Your task to perform on an android device: Open the web browser Image 0: 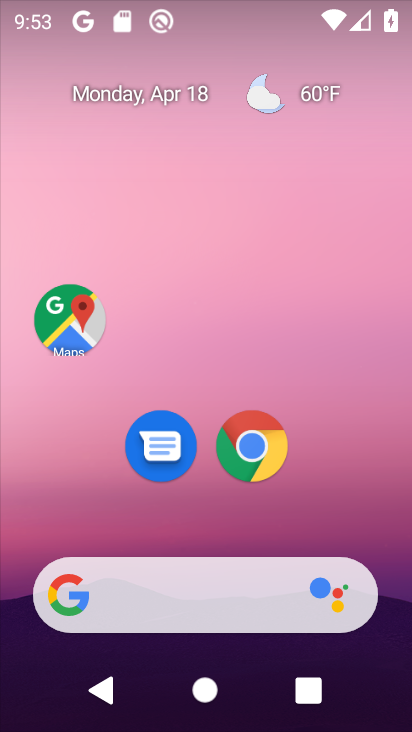
Step 0: drag from (389, 498) to (368, 127)
Your task to perform on an android device: Open the web browser Image 1: 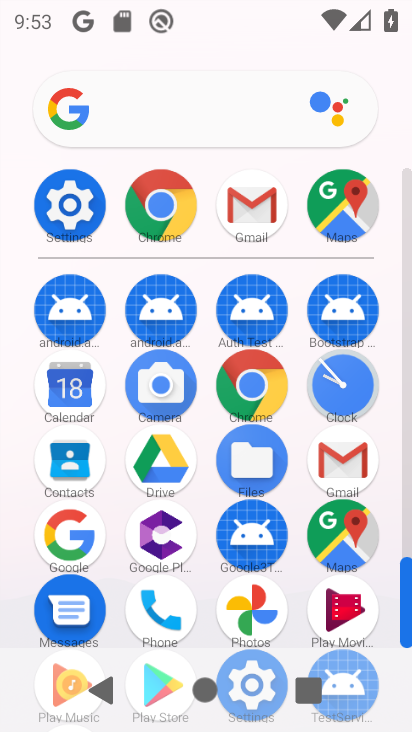
Step 1: click (256, 395)
Your task to perform on an android device: Open the web browser Image 2: 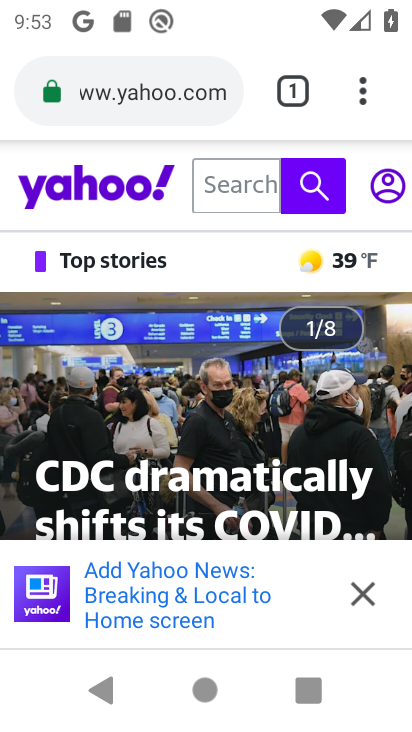
Step 2: task complete